Your task to perform on an android device: Toggle the flashlight Image 0: 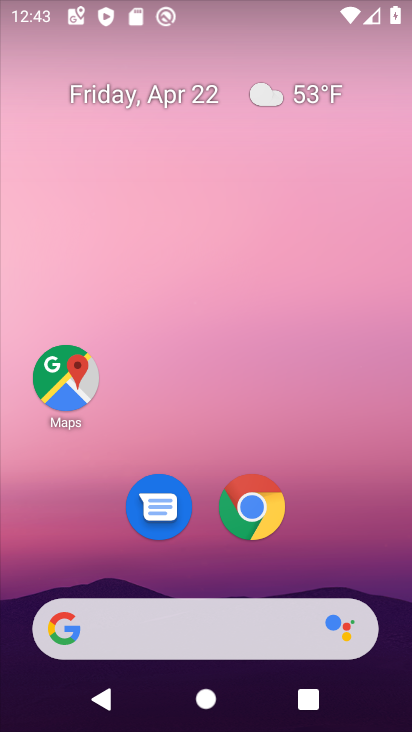
Step 0: drag from (321, 575) to (289, 33)
Your task to perform on an android device: Toggle the flashlight Image 1: 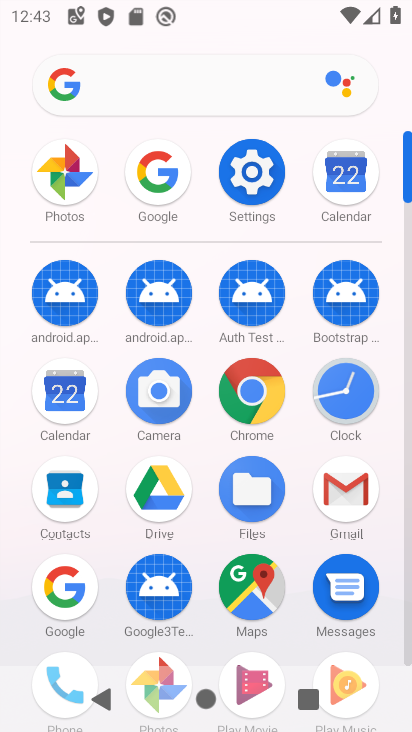
Step 1: click (258, 182)
Your task to perform on an android device: Toggle the flashlight Image 2: 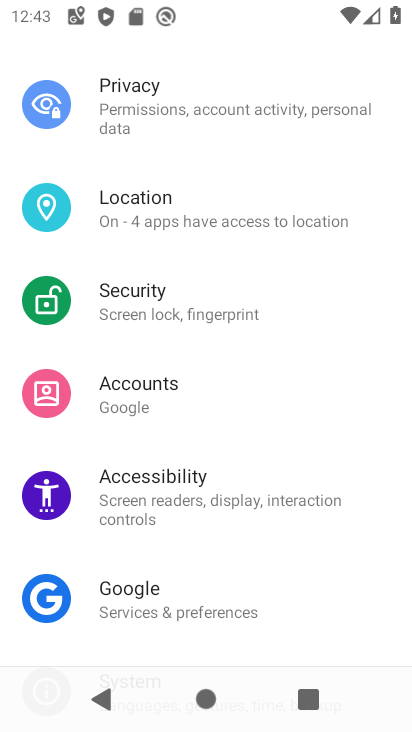
Step 2: drag from (311, 86) to (280, 412)
Your task to perform on an android device: Toggle the flashlight Image 3: 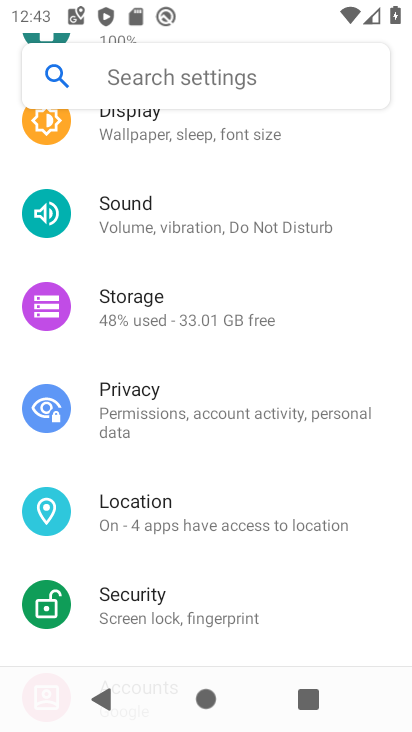
Step 3: click (177, 95)
Your task to perform on an android device: Toggle the flashlight Image 4: 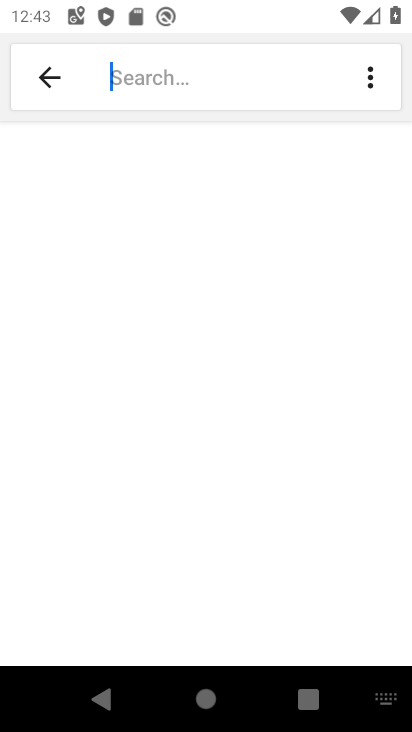
Step 4: type "flashlight"
Your task to perform on an android device: Toggle the flashlight Image 5: 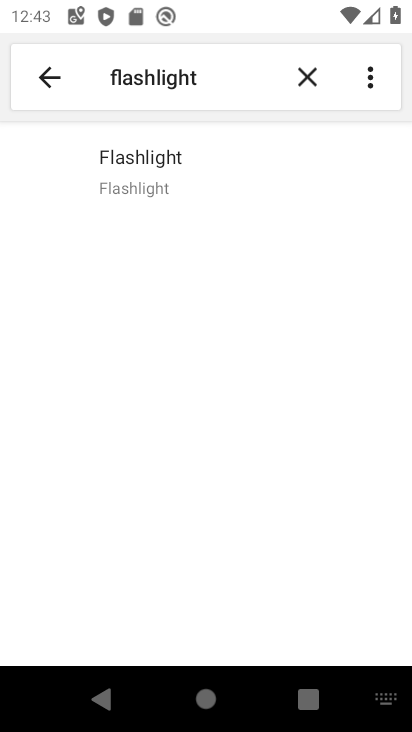
Step 5: click (188, 158)
Your task to perform on an android device: Toggle the flashlight Image 6: 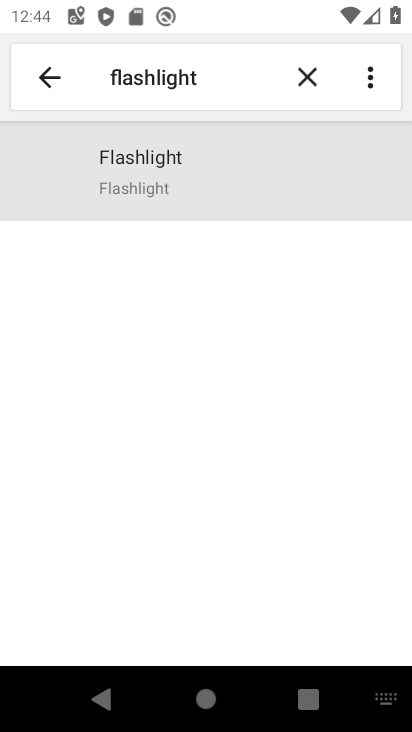
Step 6: click (147, 162)
Your task to perform on an android device: Toggle the flashlight Image 7: 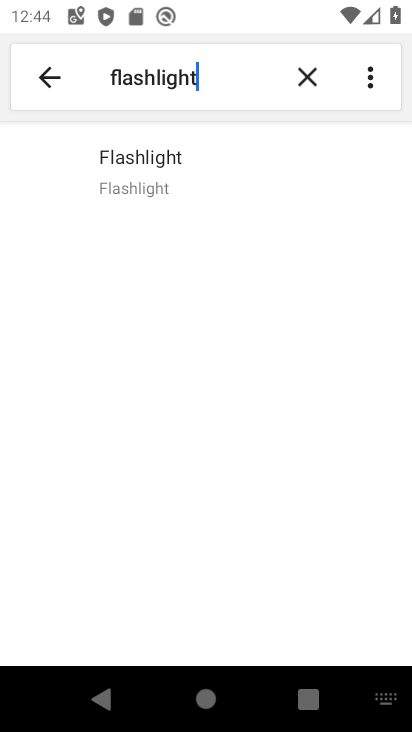
Step 7: task complete